Your task to perform on an android device: create a new album in the google photos Image 0: 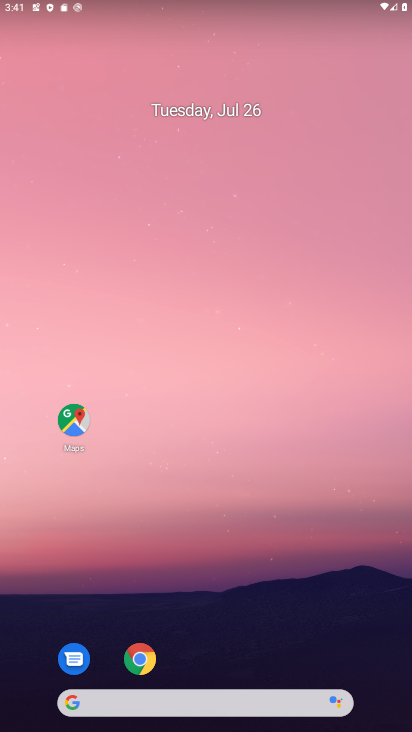
Step 0: drag from (296, 646) to (253, 112)
Your task to perform on an android device: create a new album in the google photos Image 1: 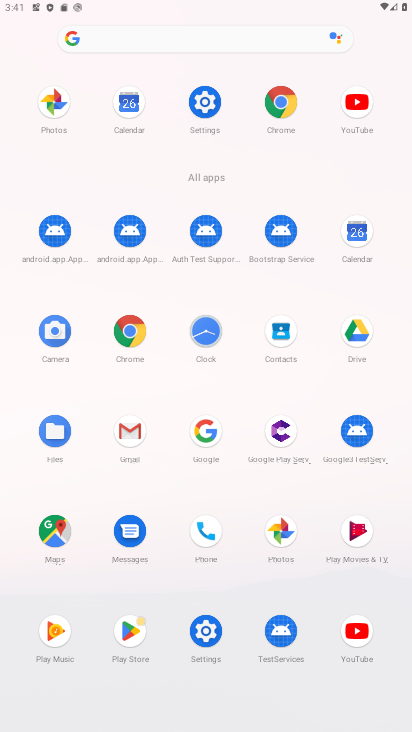
Step 1: click (283, 528)
Your task to perform on an android device: create a new album in the google photos Image 2: 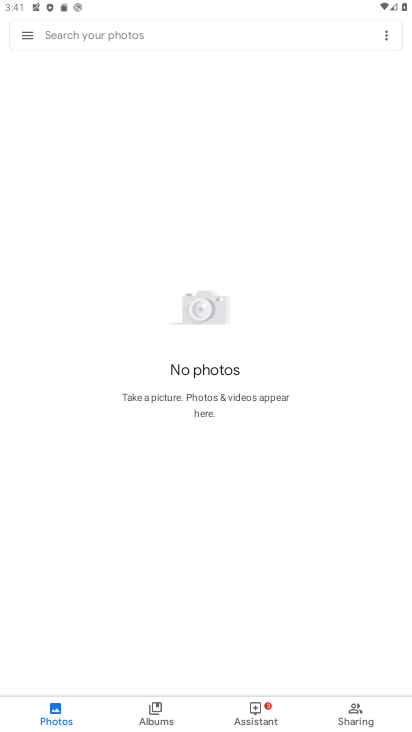
Step 2: click (141, 701)
Your task to perform on an android device: create a new album in the google photos Image 3: 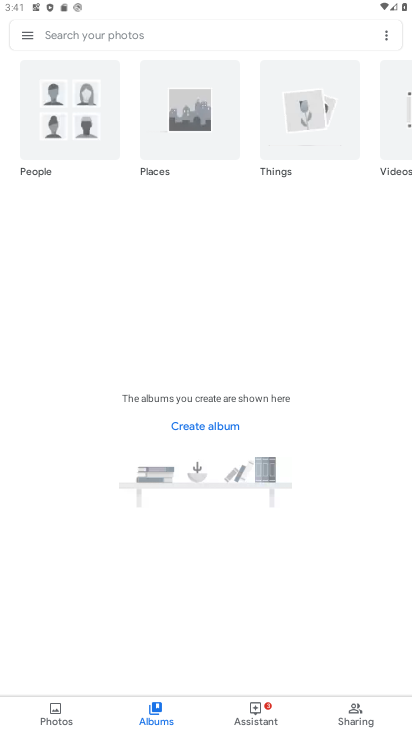
Step 3: click (214, 426)
Your task to perform on an android device: create a new album in the google photos Image 4: 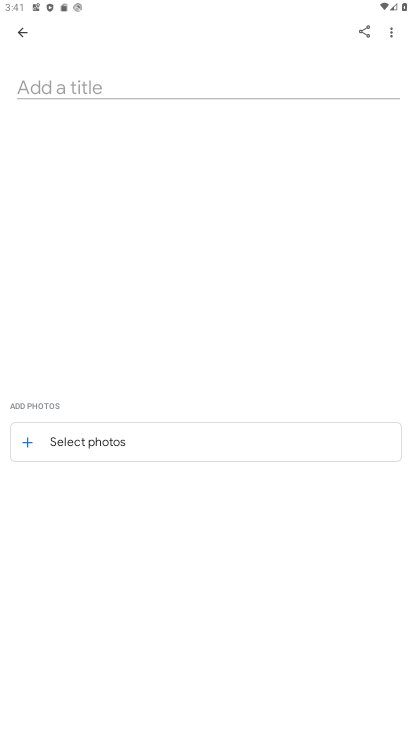
Step 4: click (266, 77)
Your task to perform on an android device: create a new album in the google photos Image 5: 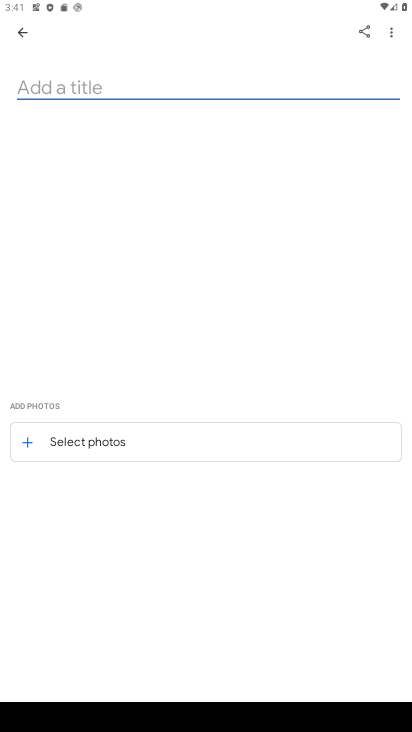
Step 5: type "bnmhjk"
Your task to perform on an android device: create a new album in the google photos Image 6: 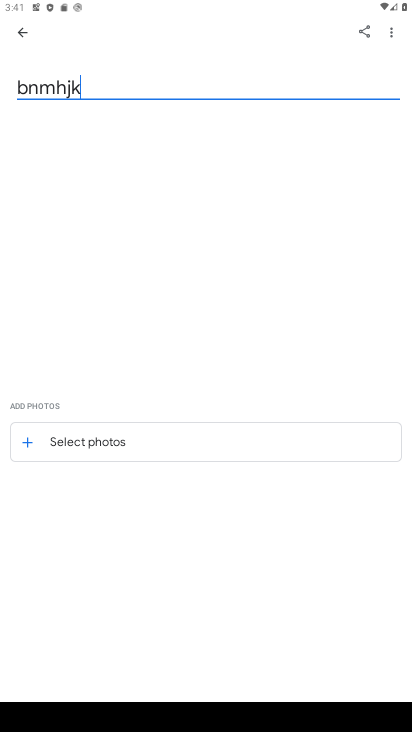
Step 6: click (95, 446)
Your task to perform on an android device: create a new album in the google photos Image 7: 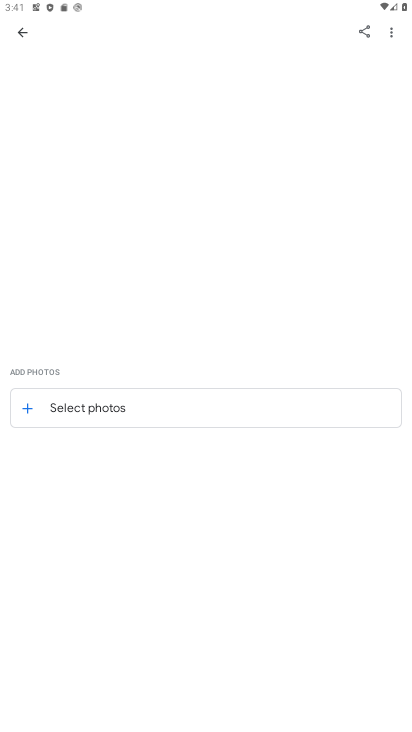
Step 7: click (123, 409)
Your task to perform on an android device: create a new album in the google photos Image 8: 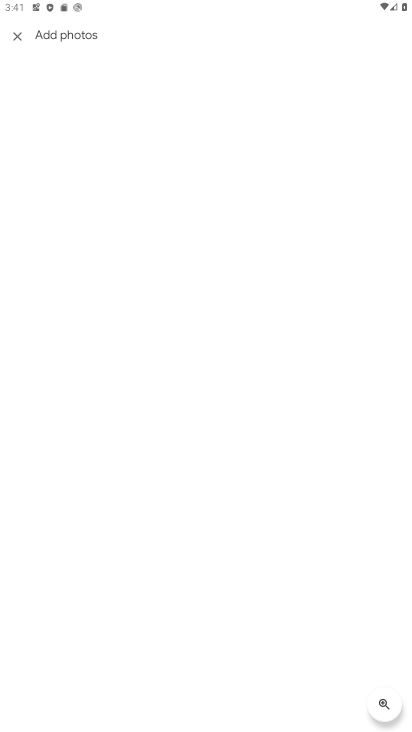
Step 8: task complete